Your task to perform on an android device: Go to internet settings Image 0: 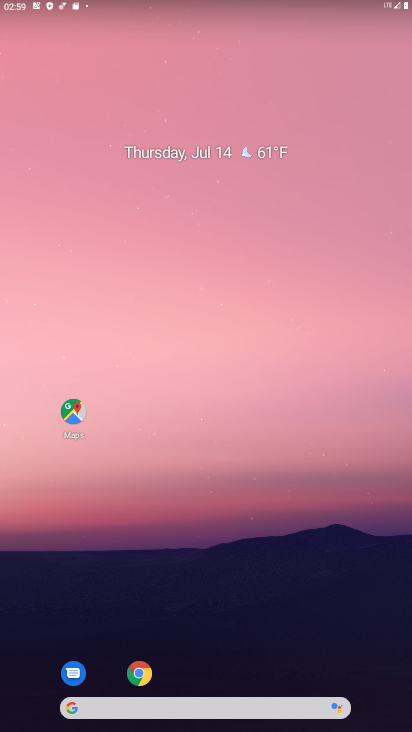
Step 0: drag from (275, 650) to (212, 234)
Your task to perform on an android device: Go to internet settings Image 1: 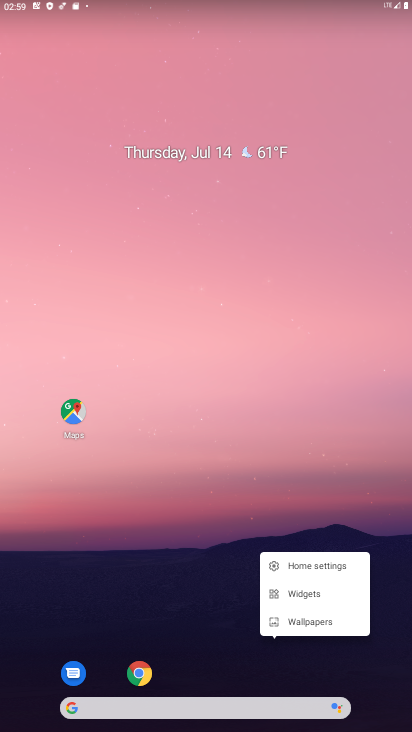
Step 1: click (212, 234)
Your task to perform on an android device: Go to internet settings Image 2: 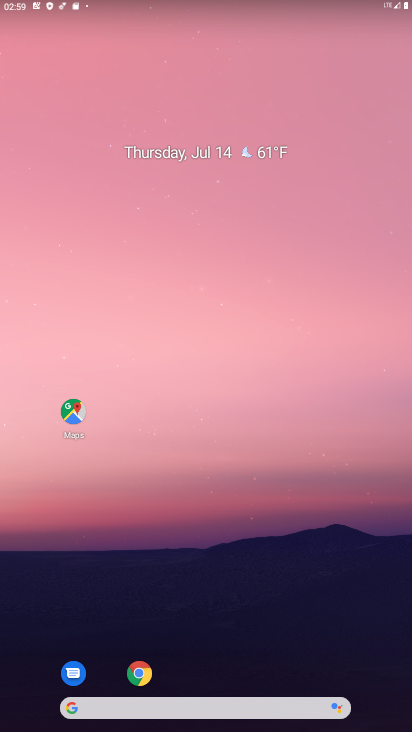
Step 2: click (271, 585)
Your task to perform on an android device: Go to internet settings Image 3: 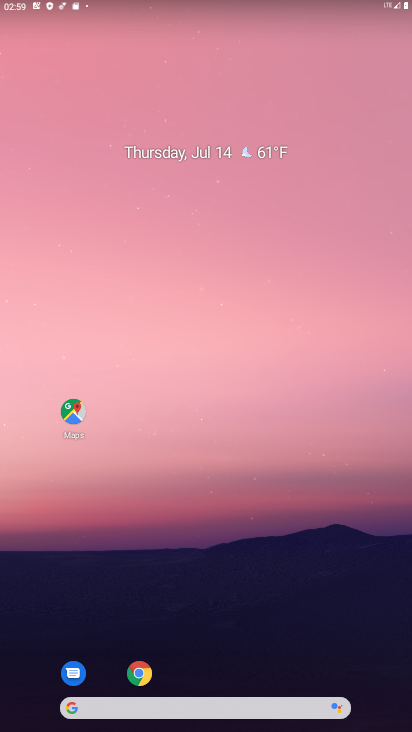
Step 3: drag from (271, 585) to (244, 380)
Your task to perform on an android device: Go to internet settings Image 4: 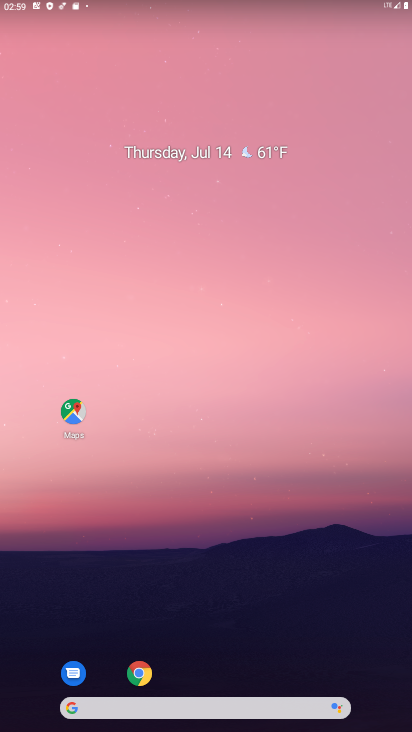
Step 4: drag from (260, 576) to (226, 134)
Your task to perform on an android device: Go to internet settings Image 5: 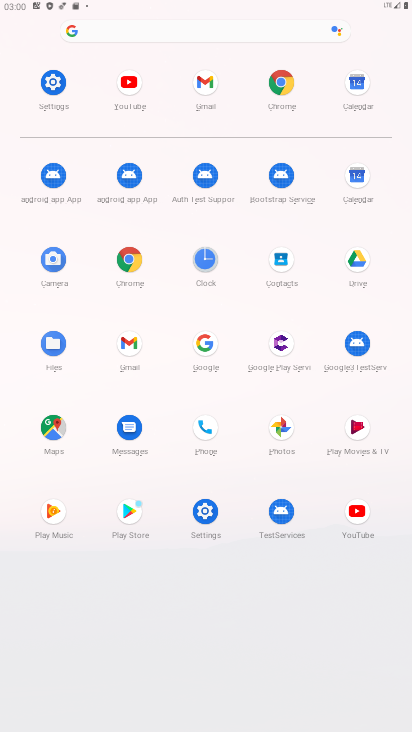
Step 5: click (54, 79)
Your task to perform on an android device: Go to internet settings Image 6: 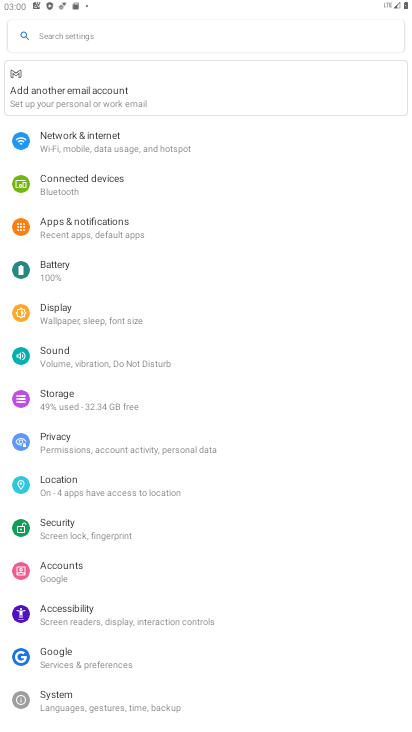
Step 6: click (142, 143)
Your task to perform on an android device: Go to internet settings Image 7: 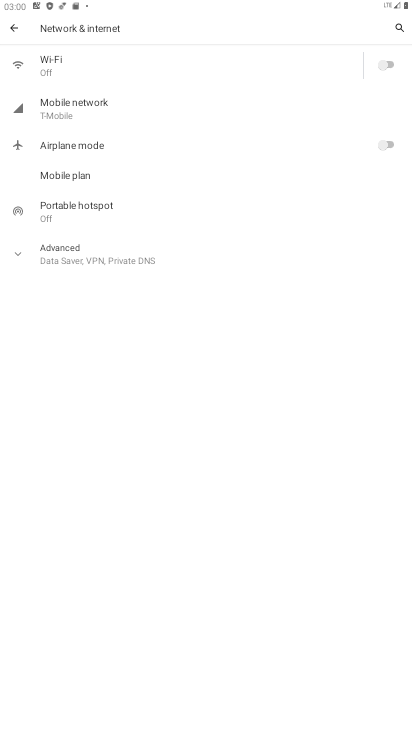
Step 7: task complete